Your task to perform on an android device: Go to notification settings Image 0: 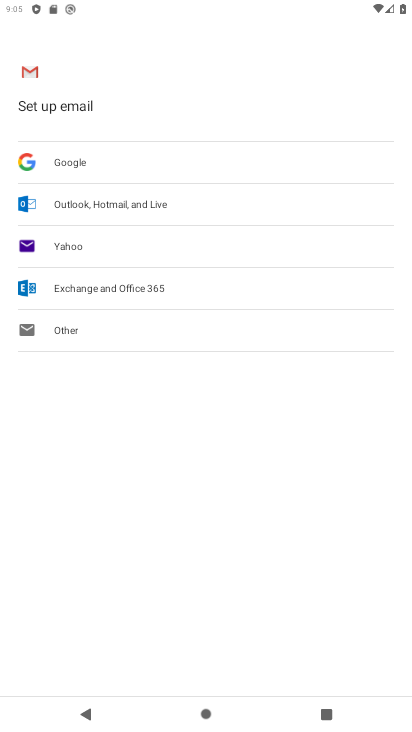
Step 0: press home button
Your task to perform on an android device: Go to notification settings Image 1: 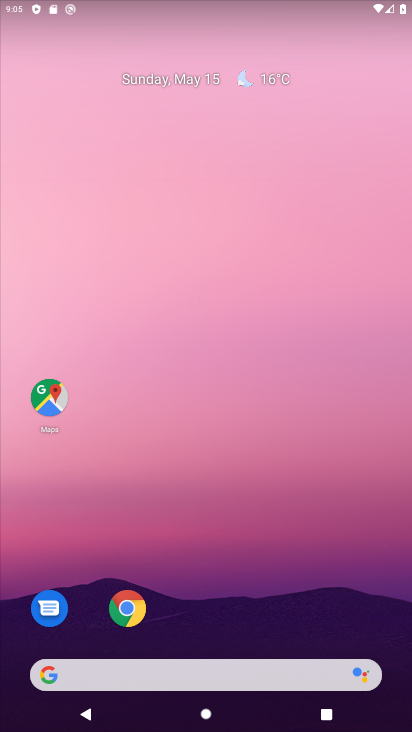
Step 1: drag from (202, 630) to (188, 58)
Your task to perform on an android device: Go to notification settings Image 2: 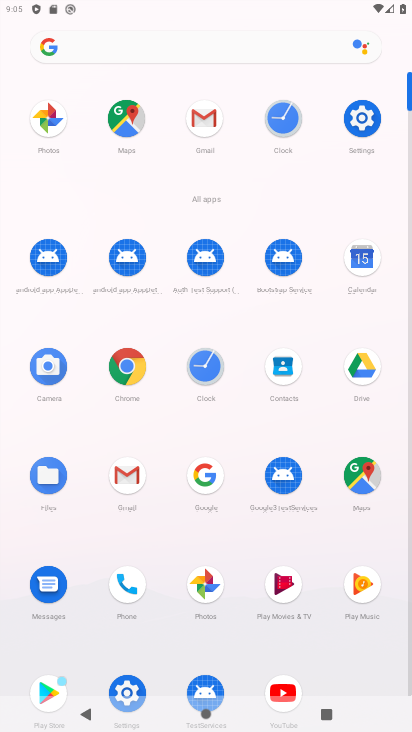
Step 2: click (369, 119)
Your task to perform on an android device: Go to notification settings Image 3: 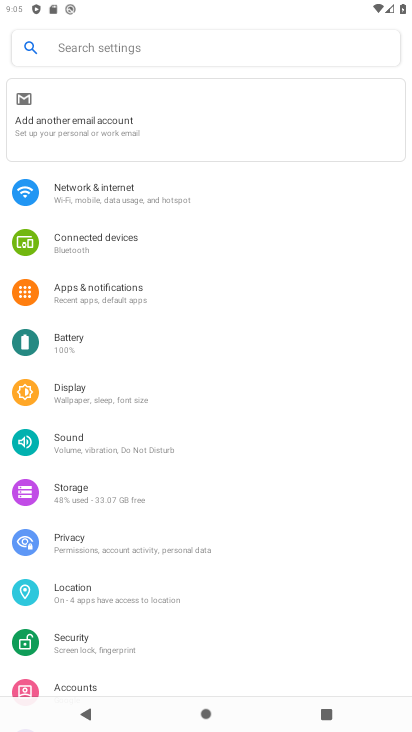
Step 3: click (98, 282)
Your task to perform on an android device: Go to notification settings Image 4: 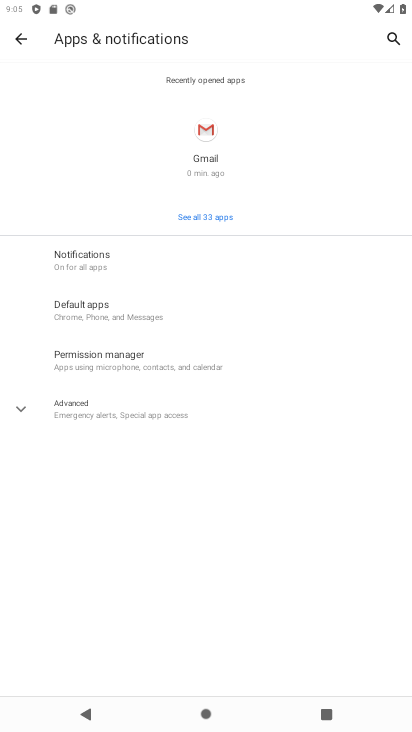
Step 4: click (63, 257)
Your task to perform on an android device: Go to notification settings Image 5: 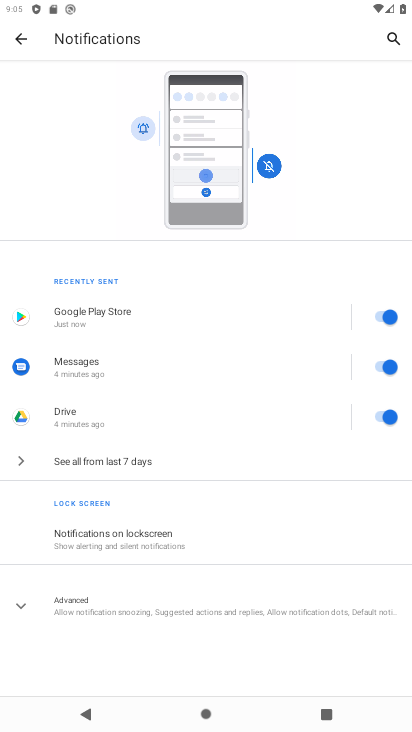
Step 5: task complete